Your task to perform on an android device: visit the assistant section in the google photos Image 0: 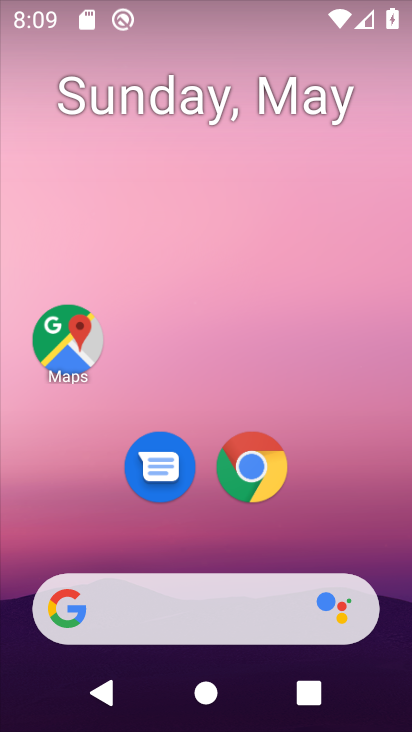
Step 0: press home button
Your task to perform on an android device: visit the assistant section in the google photos Image 1: 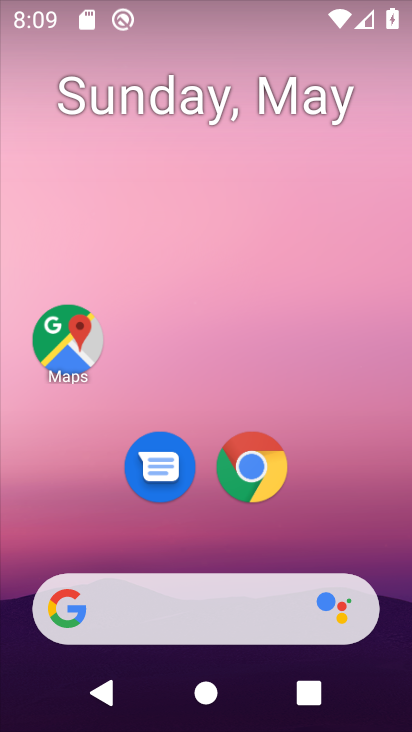
Step 1: drag from (356, 527) to (402, 86)
Your task to perform on an android device: visit the assistant section in the google photos Image 2: 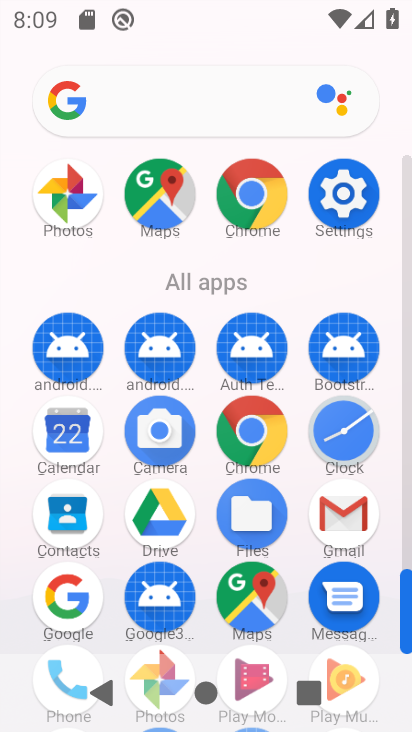
Step 2: drag from (183, 586) to (205, 255)
Your task to perform on an android device: visit the assistant section in the google photos Image 3: 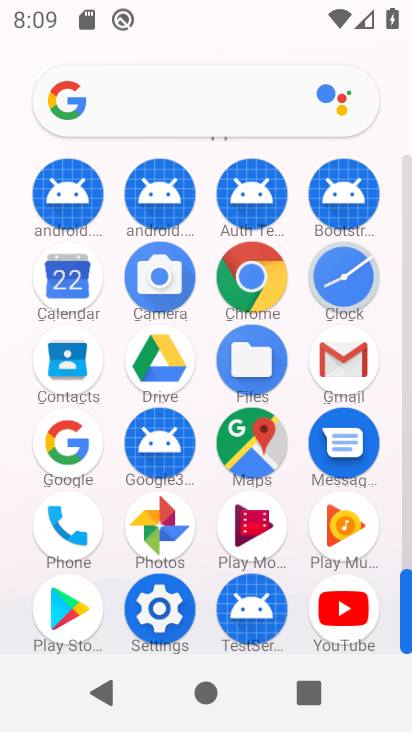
Step 3: click (169, 523)
Your task to perform on an android device: visit the assistant section in the google photos Image 4: 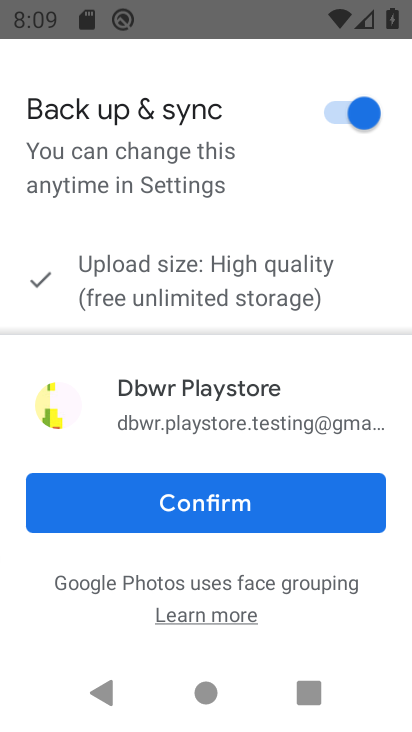
Step 4: click (188, 510)
Your task to perform on an android device: visit the assistant section in the google photos Image 5: 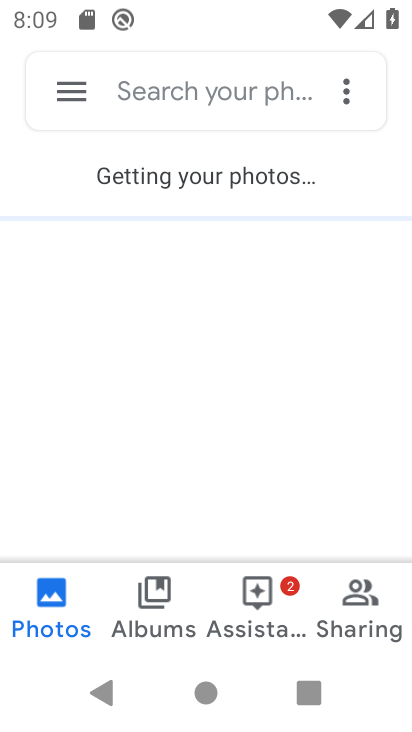
Step 5: click (238, 608)
Your task to perform on an android device: visit the assistant section in the google photos Image 6: 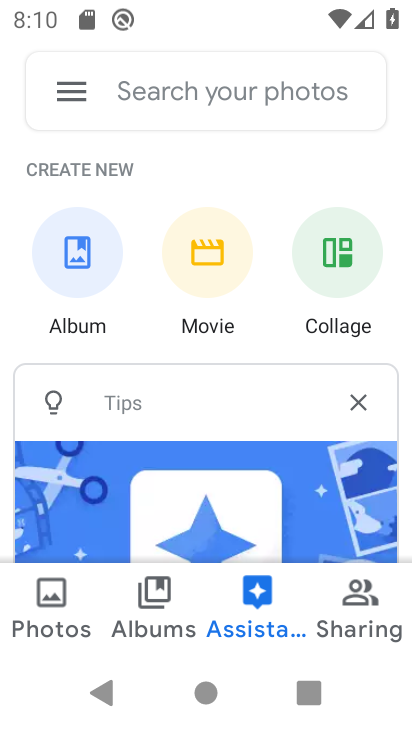
Step 6: task complete